Your task to perform on an android device: Show me productivity apps on the Play Store Image 0: 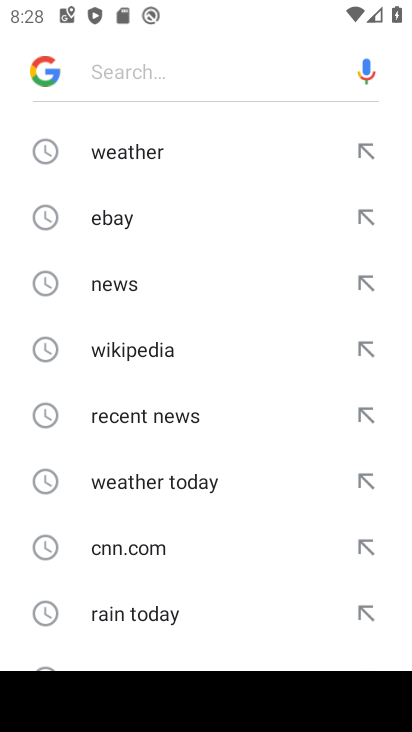
Step 0: press home button
Your task to perform on an android device: Show me productivity apps on the Play Store Image 1: 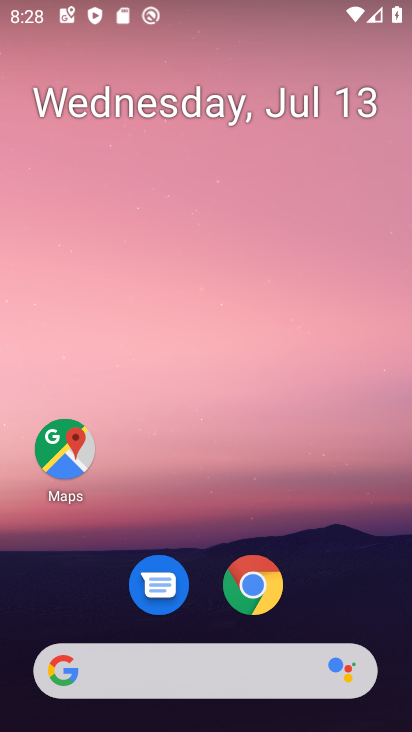
Step 1: drag from (211, 513) to (215, 38)
Your task to perform on an android device: Show me productivity apps on the Play Store Image 2: 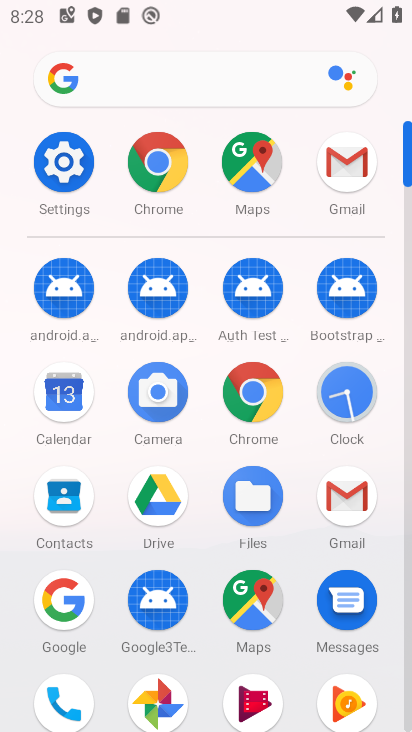
Step 2: drag from (206, 434) to (222, 120)
Your task to perform on an android device: Show me productivity apps on the Play Store Image 3: 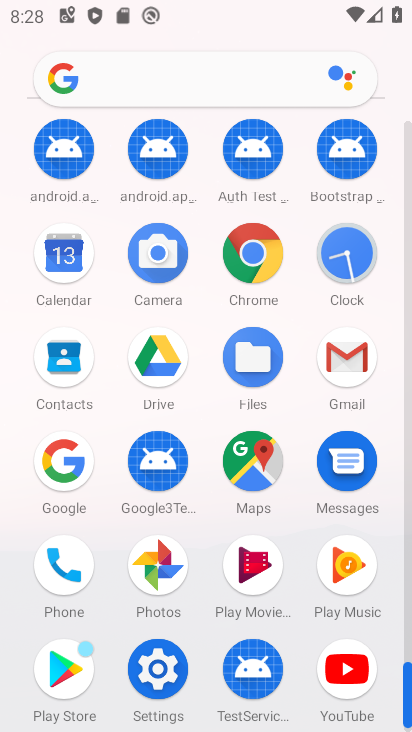
Step 3: click (70, 656)
Your task to perform on an android device: Show me productivity apps on the Play Store Image 4: 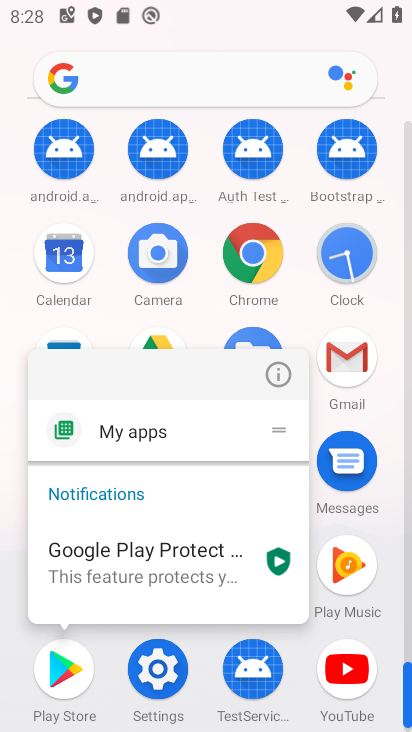
Step 4: click (70, 665)
Your task to perform on an android device: Show me productivity apps on the Play Store Image 5: 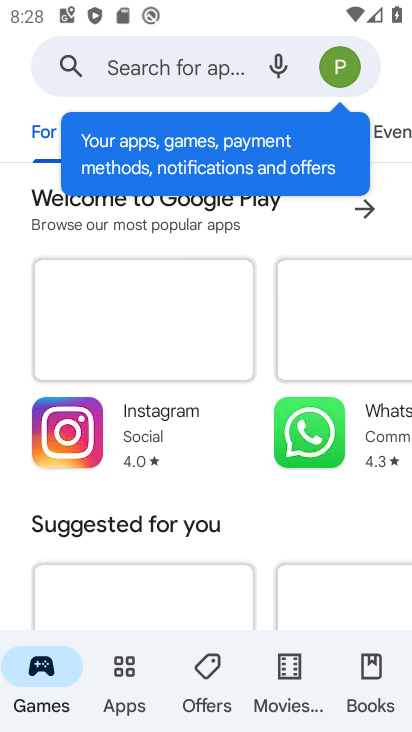
Step 5: click (129, 669)
Your task to perform on an android device: Show me productivity apps on the Play Store Image 6: 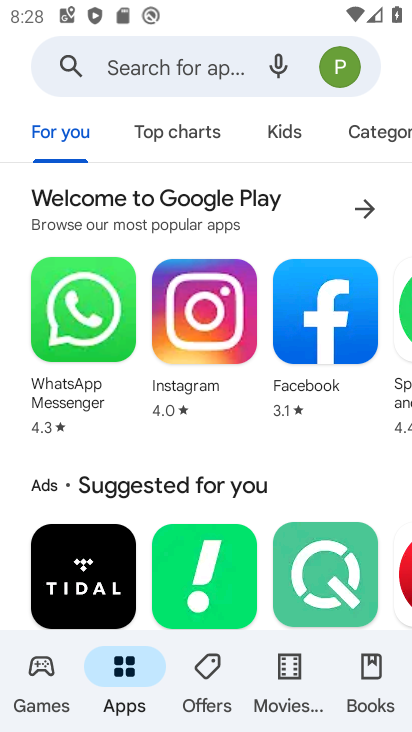
Step 6: click (387, 131)
Your task to perform on an android device: Show me productivity apps on the Play Store Image 7: 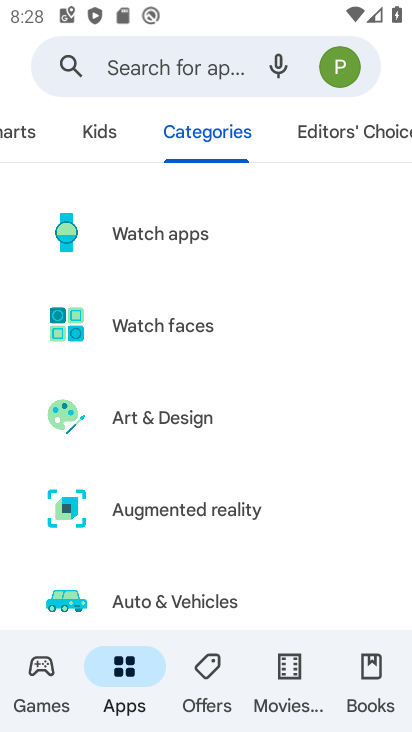
Step 7: drag from (266, 554) to (292, 0)
Your task to perform on an android device: Show me productivity apps on the Play Store Image 8: 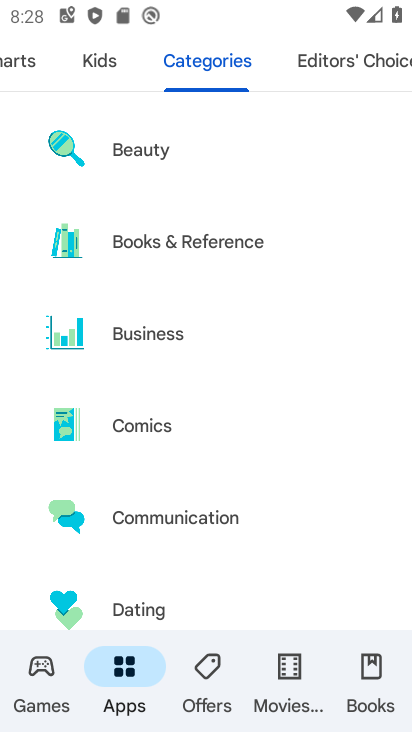
Step 8: drag from (230, 606) to (260, 1)
Your task to perform on an android device: Show me productivity apps on the Play Store Image 9: 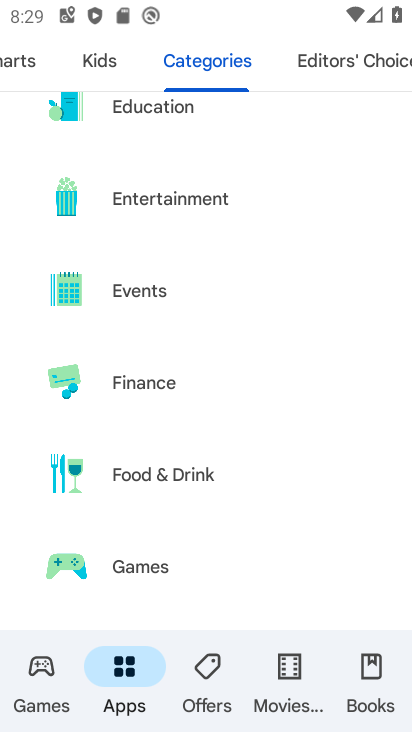
Step 9: drag from (249, 601) to (244, 51)
Your task to perform on an android device: Show me productivity apps on the Play Store Image 10: 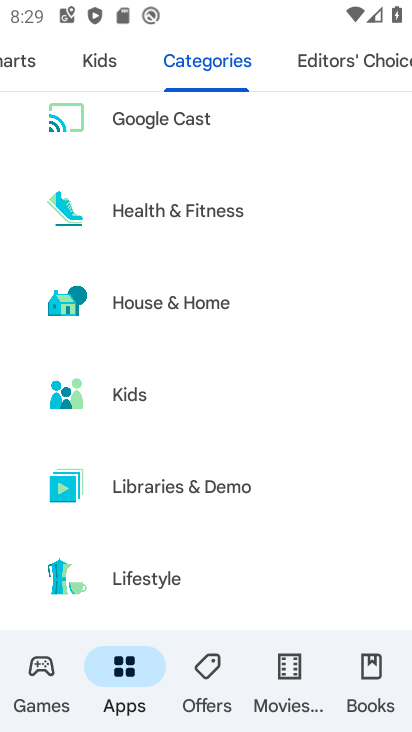
Step 10: drag from (245, 602) to (258, 115)
Your task to perform on an android device: Show me productivity apps on the Play Store Image 11: 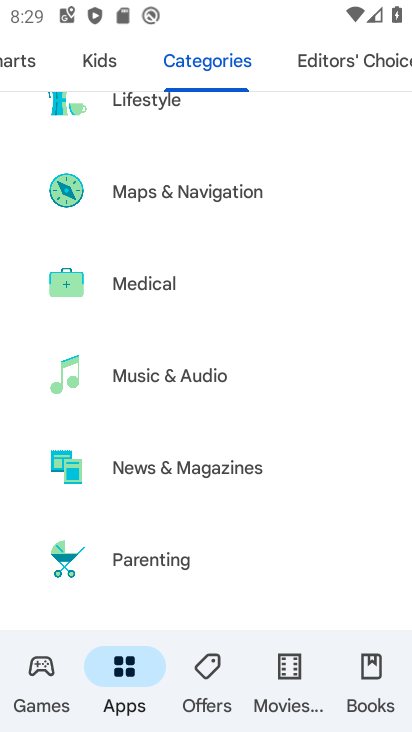
Step 11: drag from (244, 545) to (254, 175)
Your task to perform on an android device: Show me productivity apps on the Play Store Image 12: 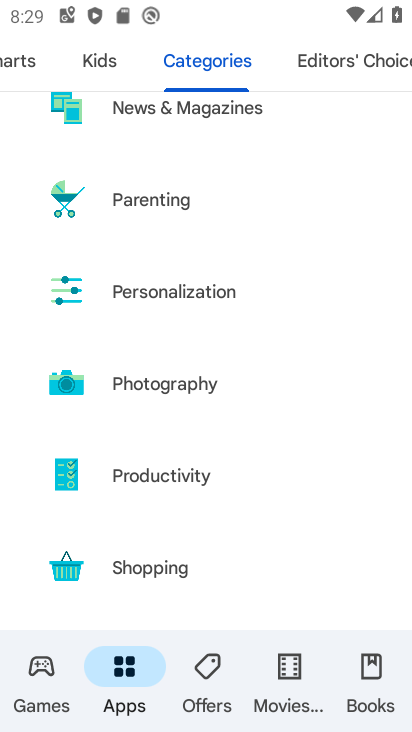
Step 12: click (200, 471)
Your task to perform on an android device: Show me productivity apps on the Play Store Image 13: 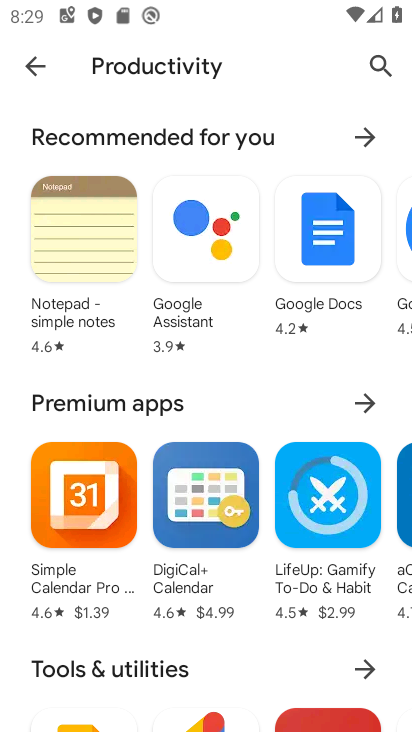
Step 13: task complete